Your task to perform on an android device: Open a new Chrome window Image 0: 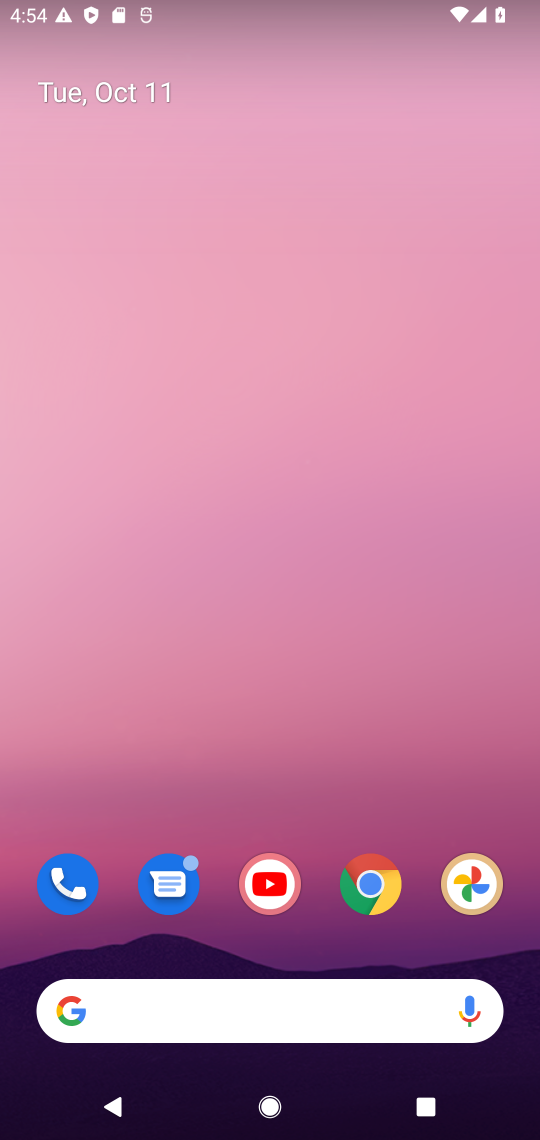
Step 0: drag from (267, 959) to (334, 98)
Your task to perform on an android device: Open a new Chrome window Image 1: 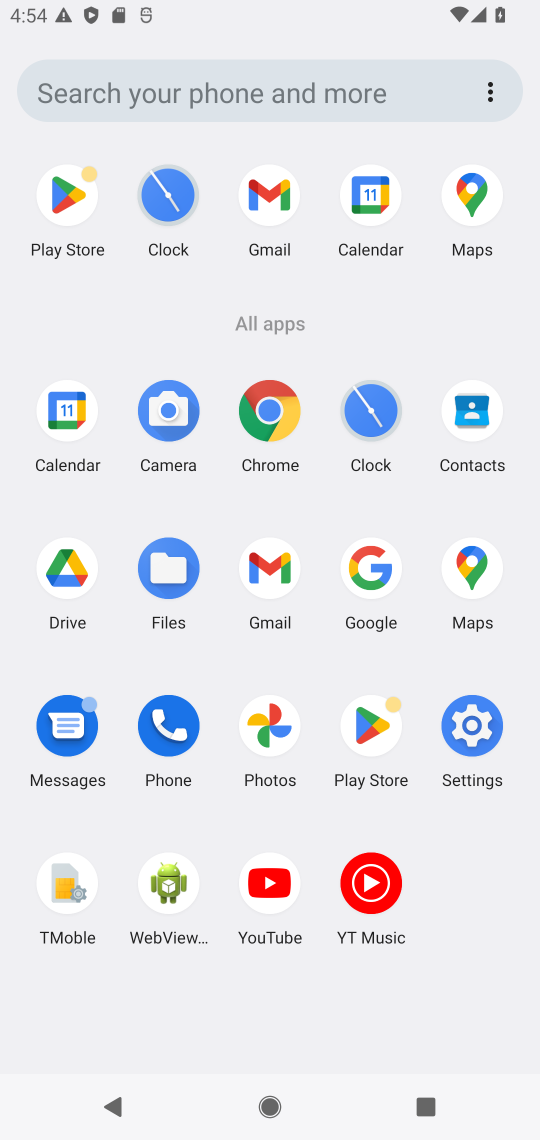
Step 1: click (275, 410)
Your task to perform on an android device: Open a new Chrome window Image 2: 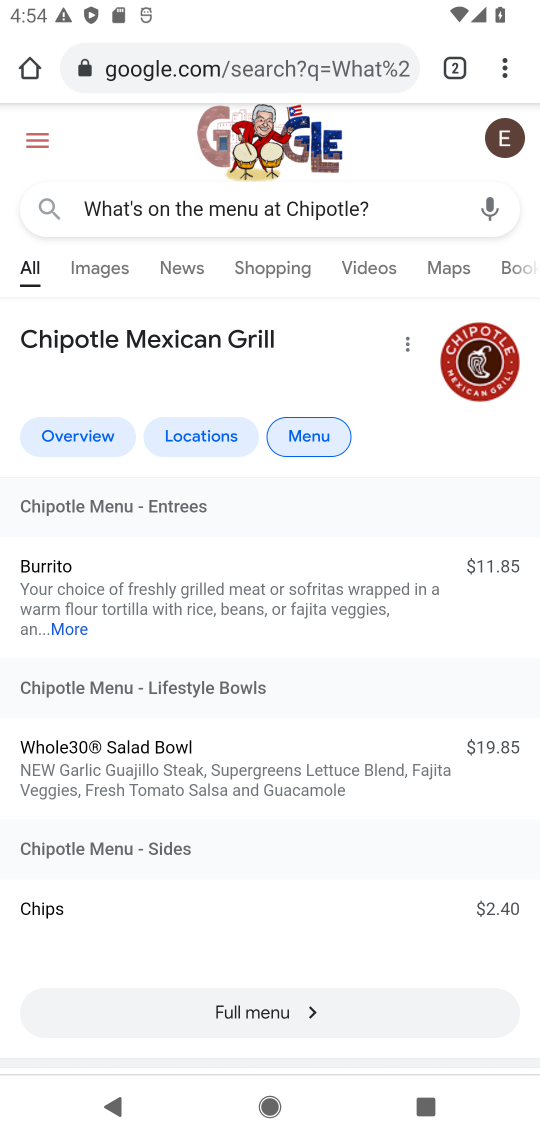
Step 2: click (506, 75)
Your task to perform on an android device: Open a new Chrome window Image 3: 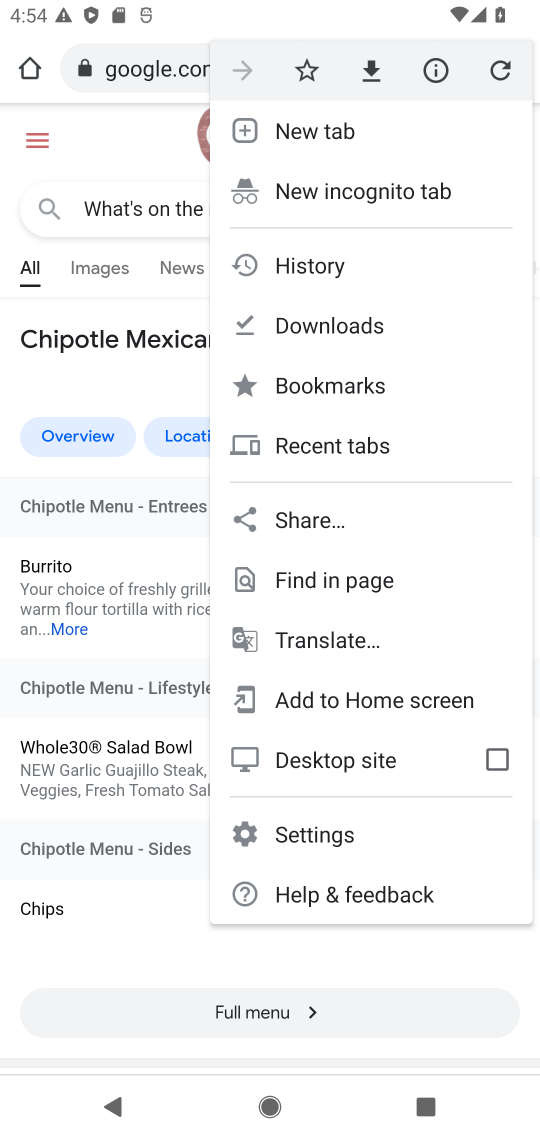
Step 3: click (340, 127)
Your task to perform on an android device: Open a new Chrome window Image 4: 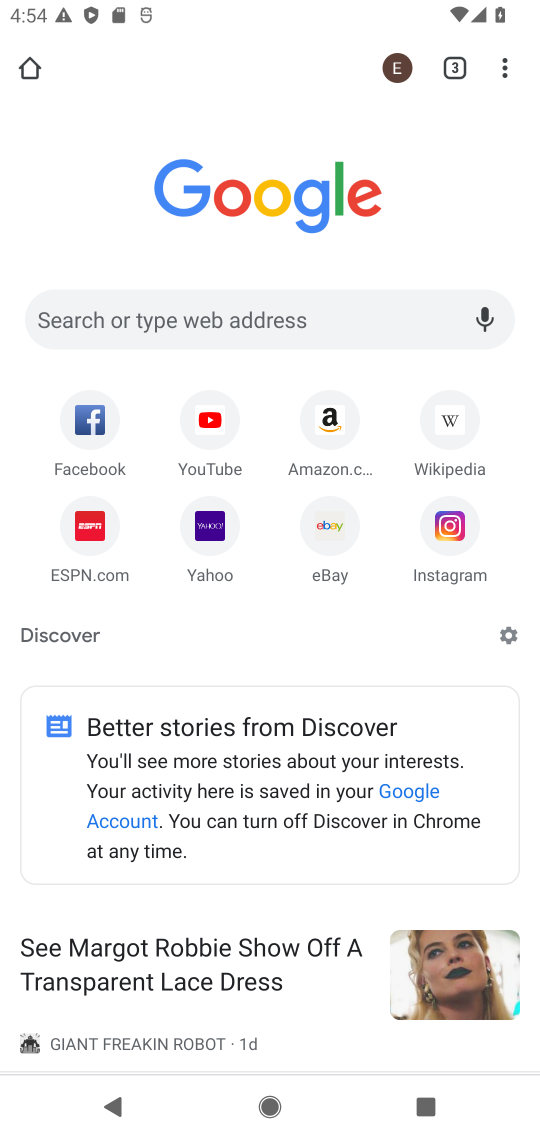
Step 4: task complete